Your task to perform on an android device: Open accessibility settings Image 0: 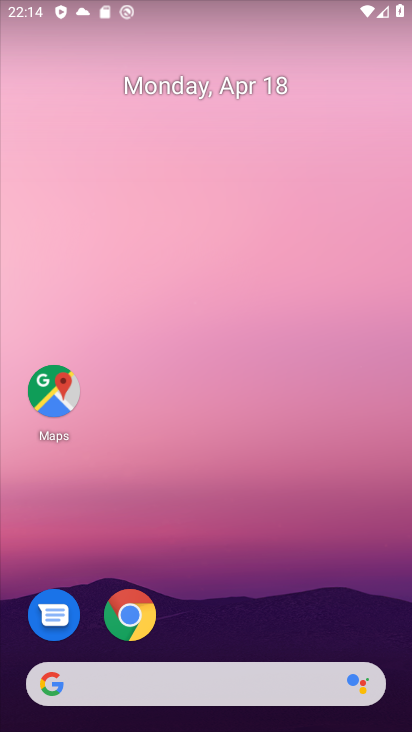
Step 0: drag from (327, 632) to (336, 18)
Your task to perform on an android device: Open accessibility settings Image 1: 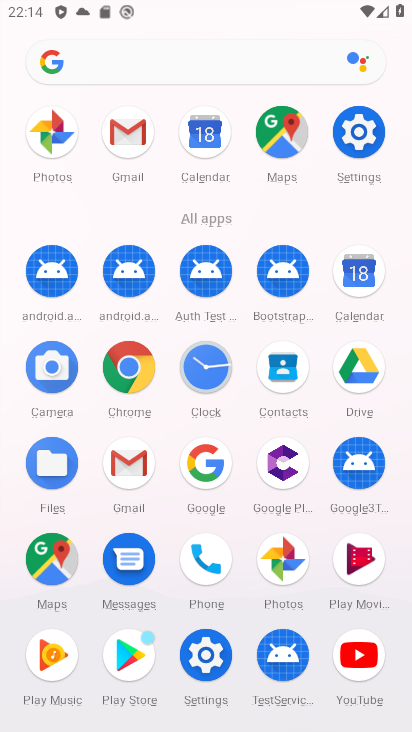
Step 1: click (350, 136)
Your task to perform on an android device: Open accessibility settings Image 2: 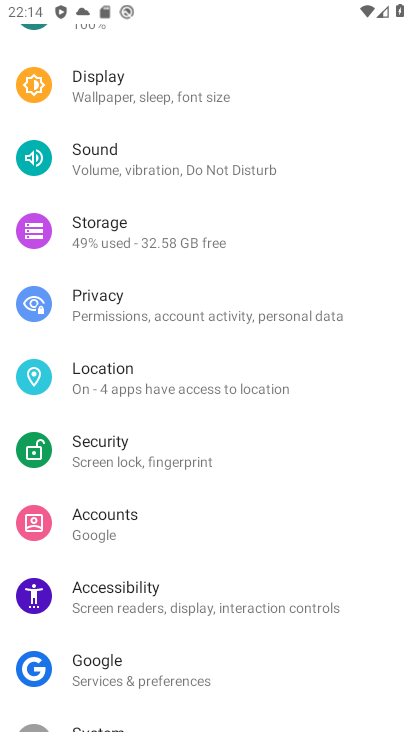
Step 2: click (127, 598)
Your task to perform on an android device: Open accessibility settings Image 3: 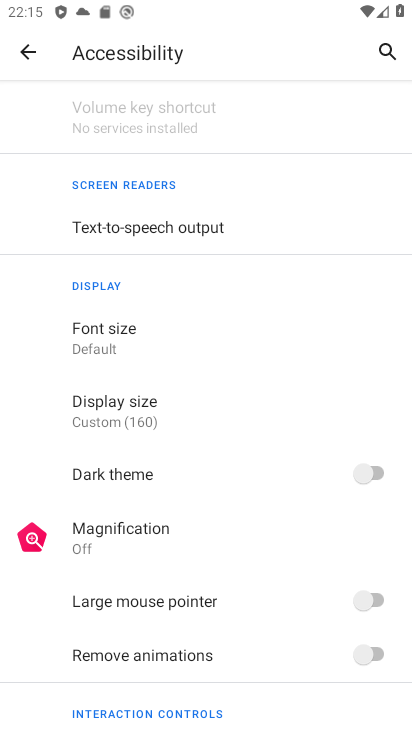
Step 3: task complete